Your task to perform on an android device: change the clock display to digital Image 0: 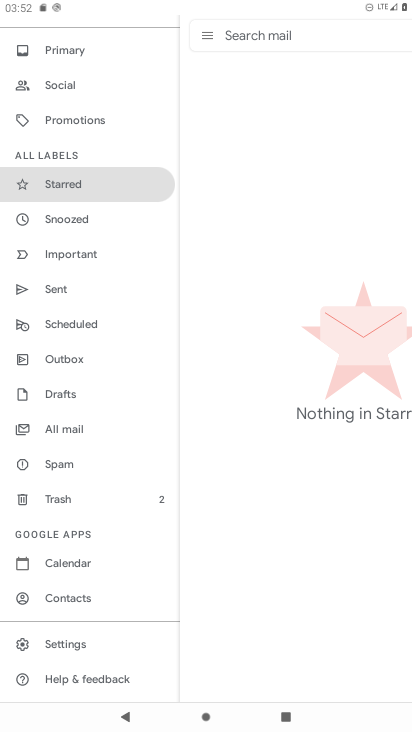
Step 0: press home button
Your task to perform on an android device: change the clock display to digital Image 1: 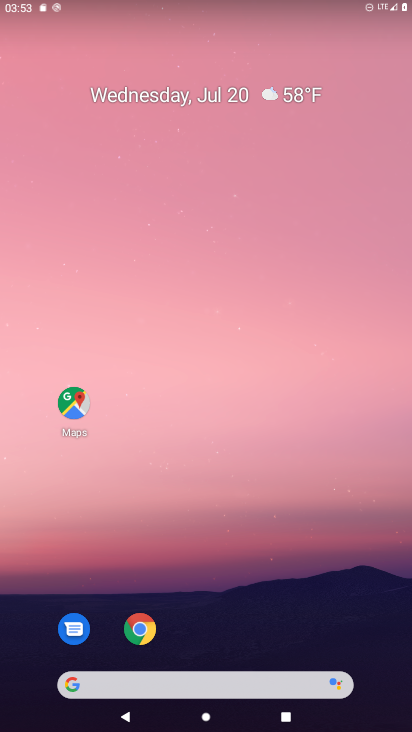
Step 1: drag from (290, 622) to (301, 97)
Your task to perform on an android device: change the clock display to digital Image 2: 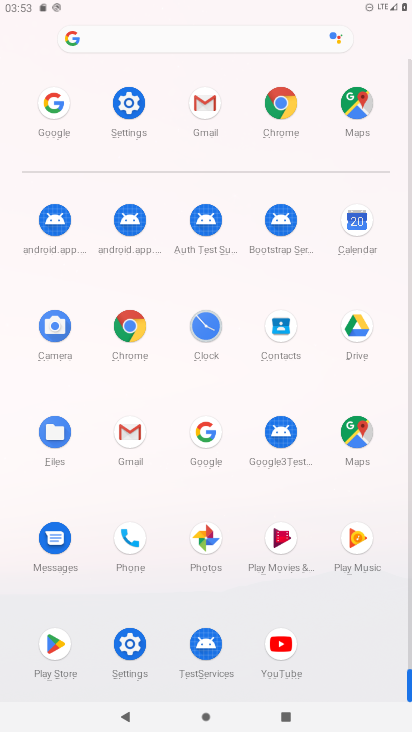
Step 2: click (213, 309)
Your task to perform on an android device: change the clock display to digital Image 3: 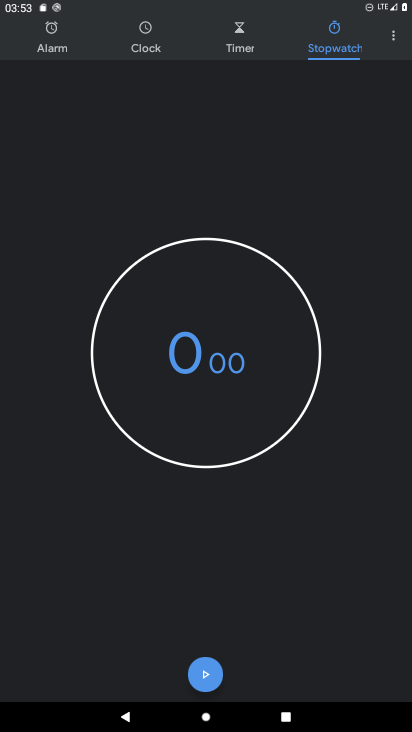
Step 3: click (389, 30)
Your task to perform on an android device: change the clock display to digital Image 4: 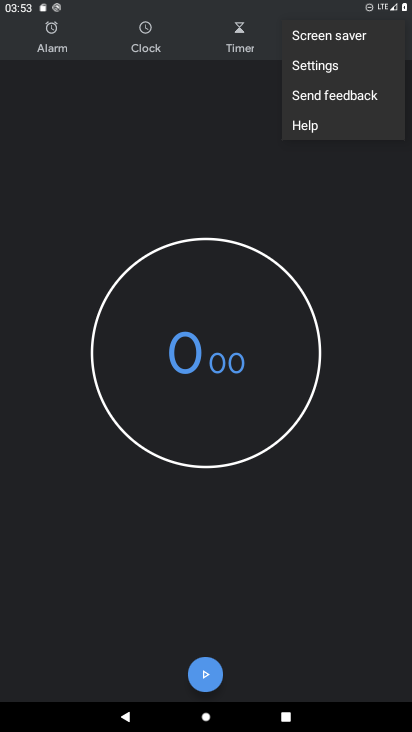
Step 4: click (309, 68)
Your task to perform on an android device: change the clock display to digital Image 5: 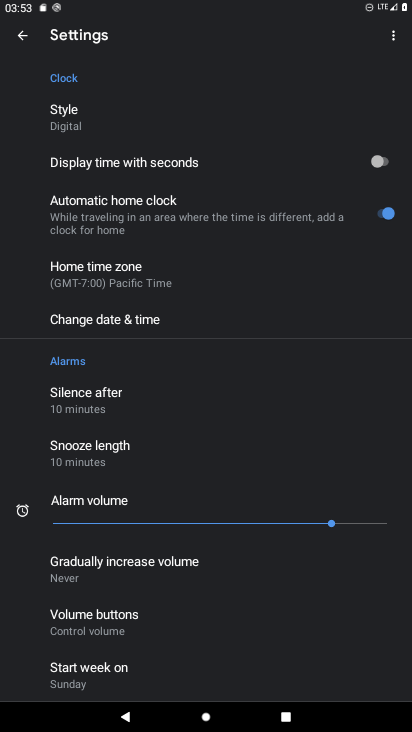
Step 5: task complete